Your task to perform on an android device: Open Youtube and go to "Your channel" Image 0: 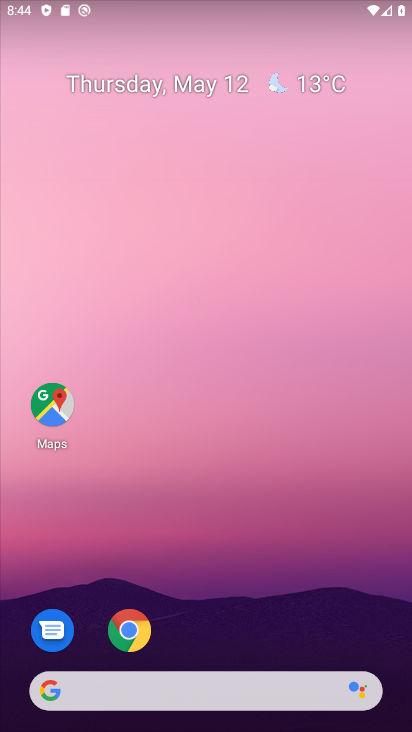
Step 0: drag from (196, 693) to (208, 115)
Your task to perform on an android device: Open Youtube and go to "Your channel" Image 1: 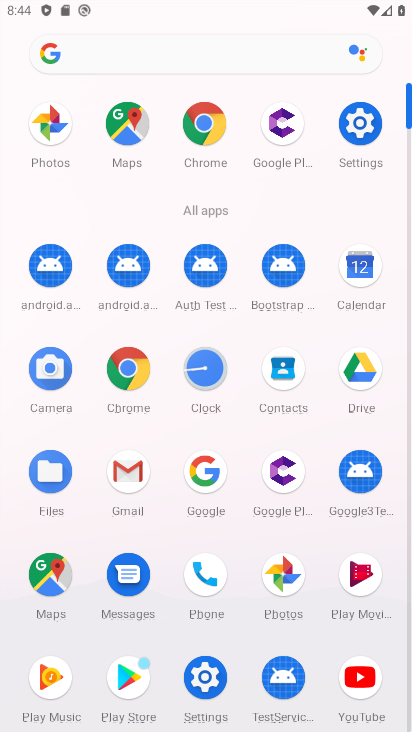
Step 1: click (342, 682)
Your task to perform on an android device: Open Youtube and go to "Your channel" Image 2: 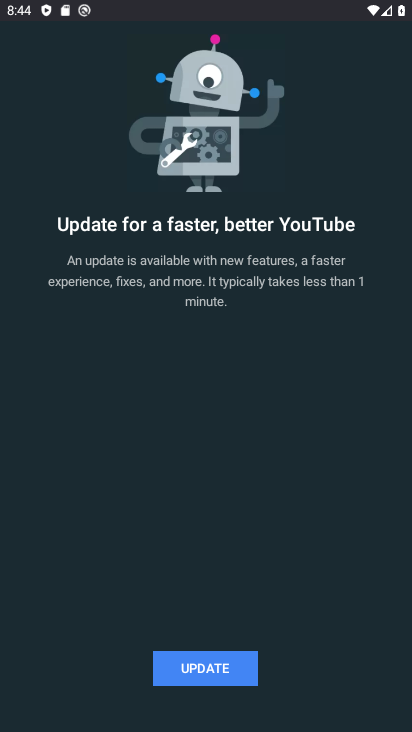
Step 2: drag from (191, 669) to (77, 669)
Your task to perform on an android device: Open Youtube and go to "Your channel" Image 3: 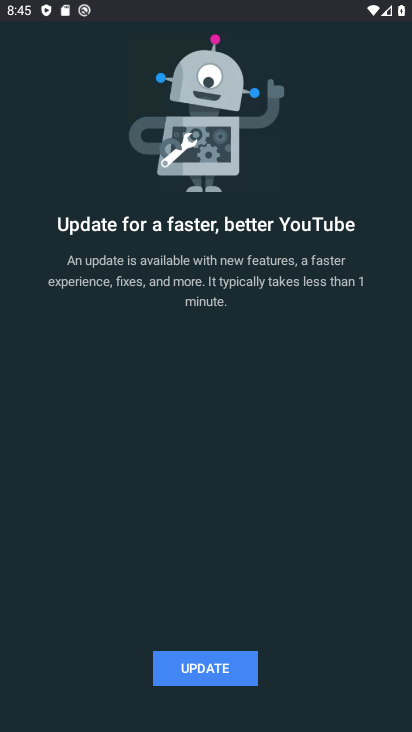
Step 3: click (175, 678)
Your task to perform on an android device: Open Youtube and go to "Your channel" Image 4: 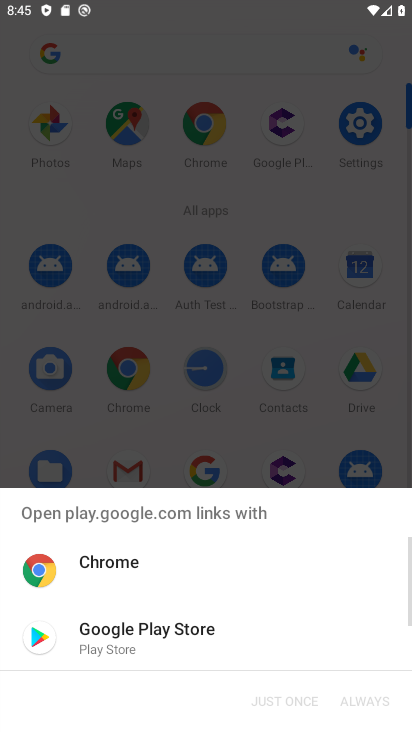
Step 4: click (123, 634)
Your task to perform on an android device: Open Youtube and go to "Your channel" Image 5: 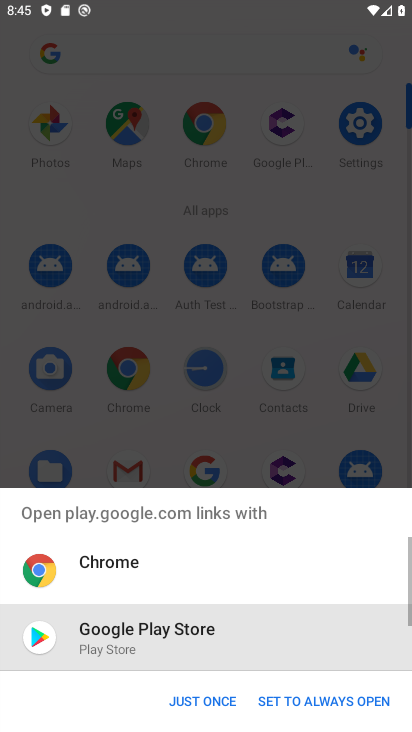
Step 5: click (197, 694)
Your task to perform on an android device: Open Youtube and go to "Your channel" Image 6: 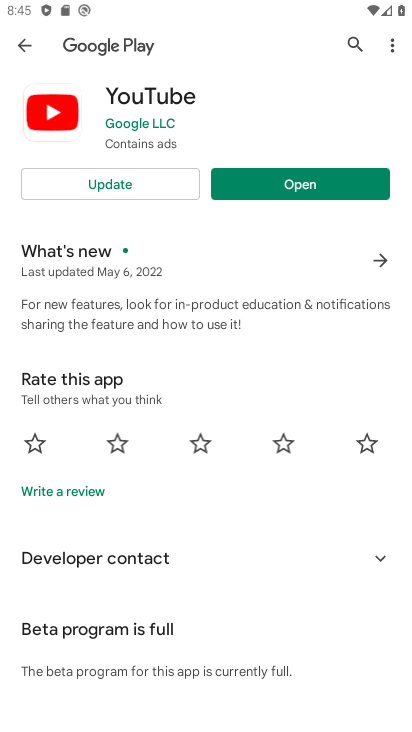
Step 6: click (103, 178)
Your task to perform on an android device: Open Youtube and go to "Your channel" Image 7: 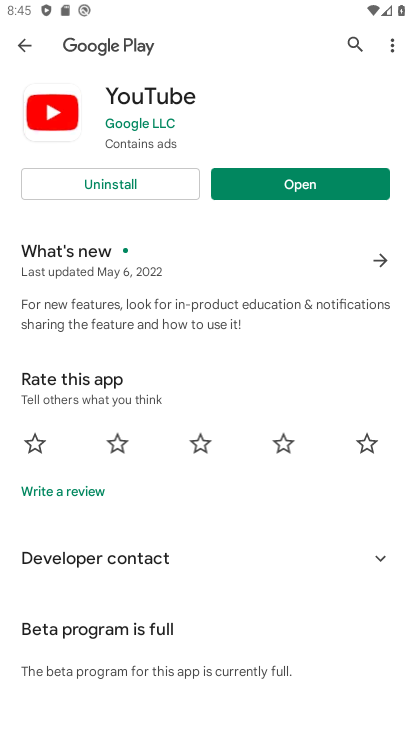
Step 7: click (267, 187)
Your task to perform on an android device: Open Youtube and go to "Your channel" Image 8: 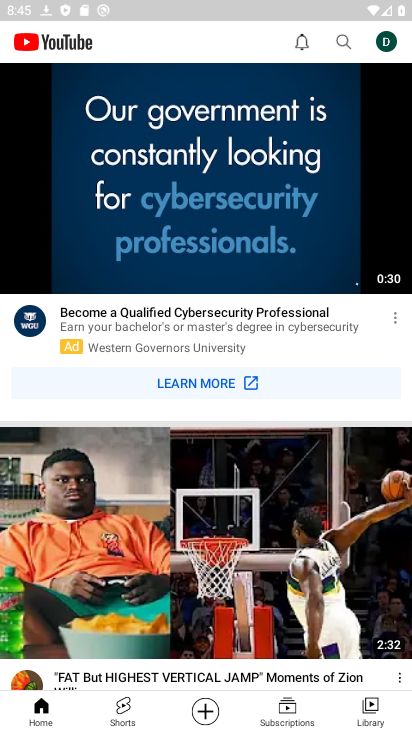
Step 8: click (377, 45)
Your task to perform on an android device: Open Youtube and go to "Your channel" Image 9: 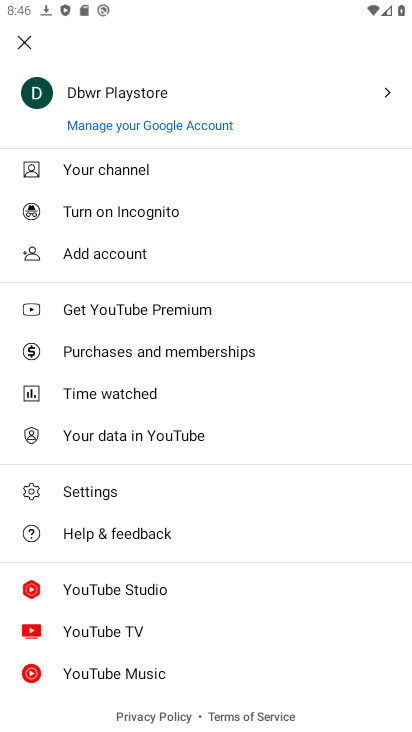
Step 9: click (108, 175)
Your task to perform on an android device: Open Youtube and go to "Your channel" Image 10: 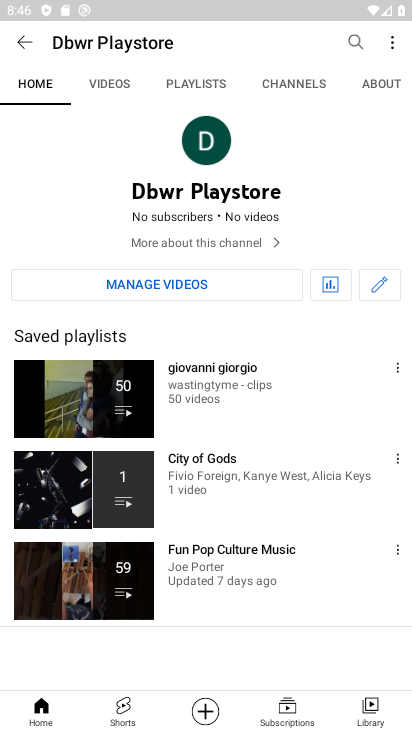
Step 10: task complete